Your task to perform on an android device: show emergency info Image 0: 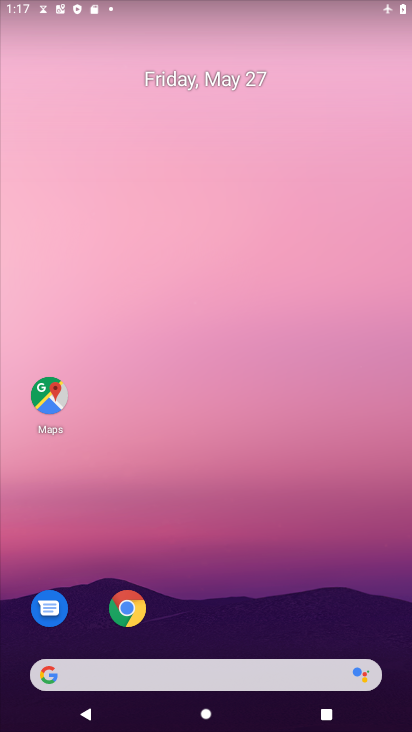
Step 0: drag from (216, 611) to (278, 128)
Your task to perform on an android device: show emergency info Image 1: 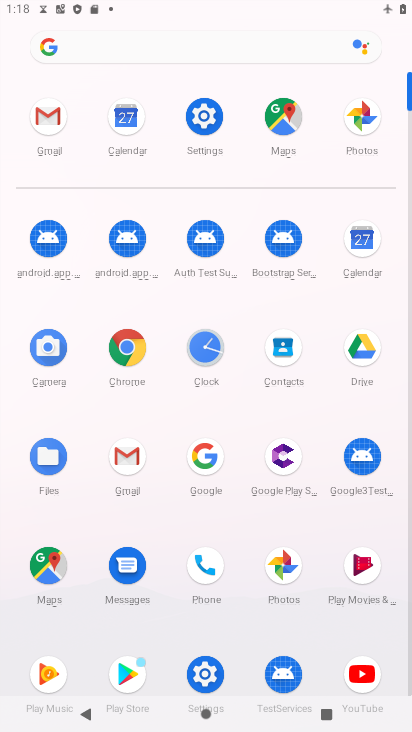
Step 1: click (201, 107)
Your task to perform on an android device: show emergency info Image 2: 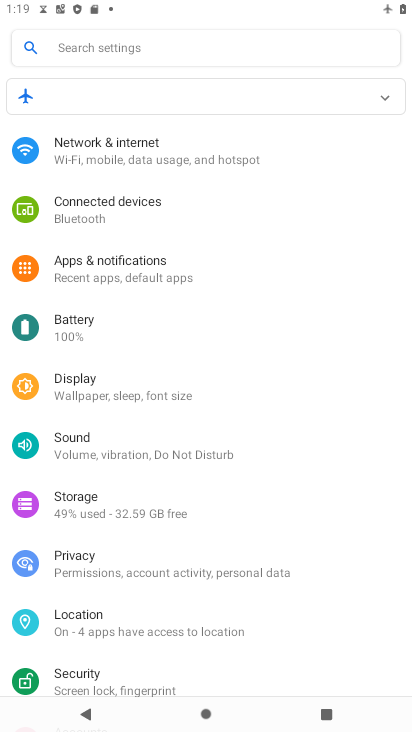
Step 2: drag from (148, 528) to (182, 319)
Your task to perform on an android device: show emergency info Image 3: 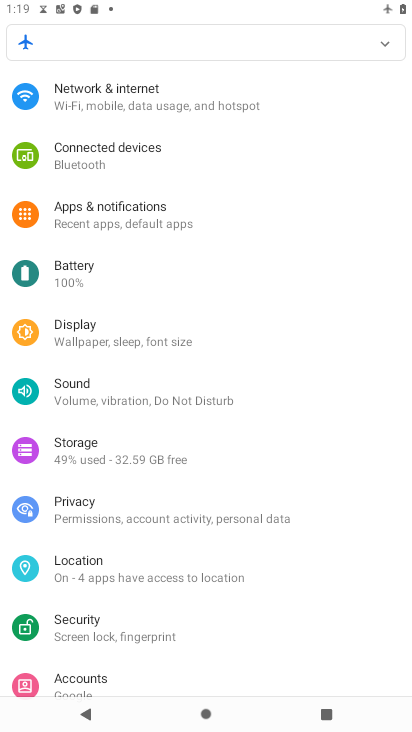
Step 3: drag from (130, 662) to (211, 119)
Your task to perform on an android device: show emergency info Image 4: 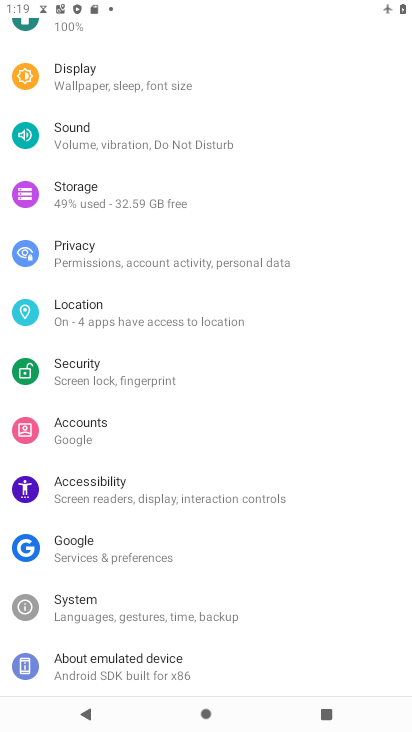
Step 4: click (103, 664)
Your task to perform on an android device: show emergency info Image 5: 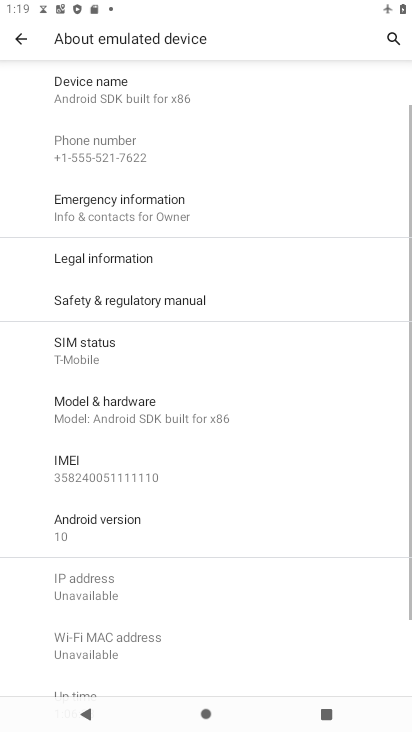
Step 5: click (120, 209)
Your task to perform on an android device: show emergency info Image 6: 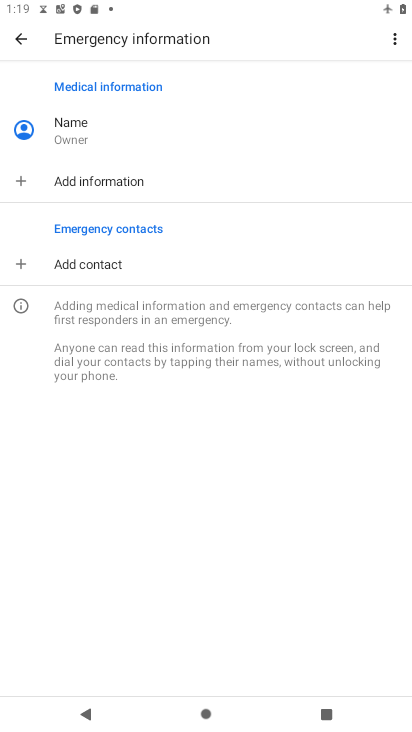
Step 6: task complete